Your task to perform on an android device: turn off priority inbox in the gmail app Image 0: 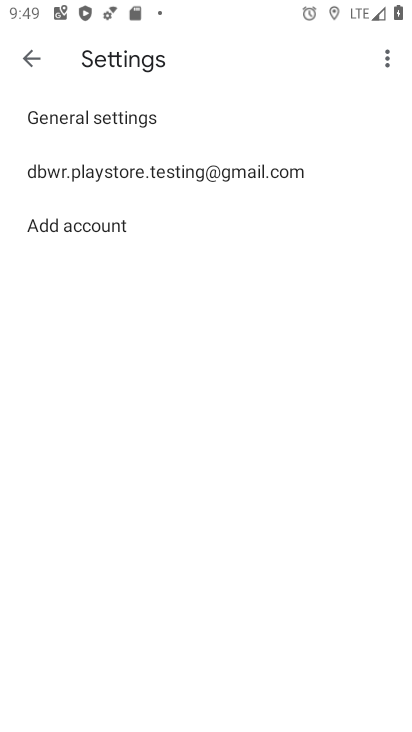
Step 0: press home button
Your task to perform on an android device: turn off priority inbox in the gmail app Image 1: 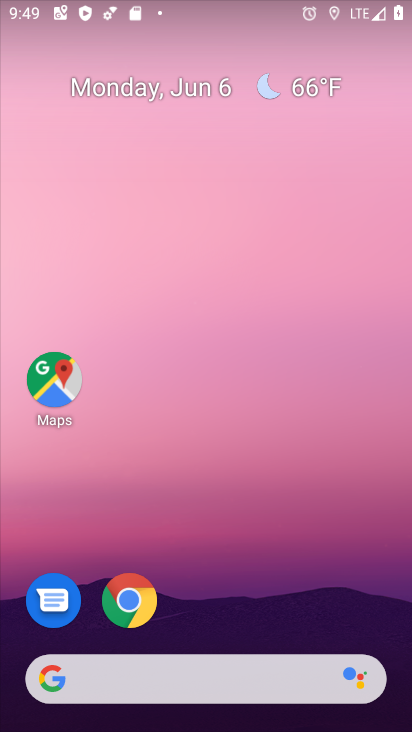
Step 1: drag from (35, 675) to (295, 166)
Your task to perform on an android device: turn off priority inbox in the gmail app Image 2: 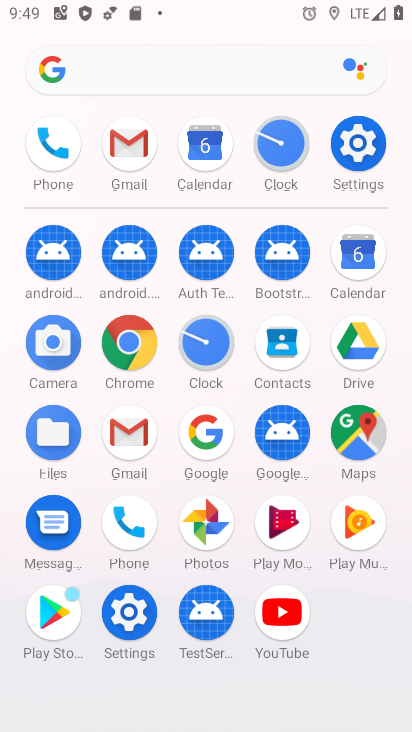
Step 2: click (143, 430)
Your task to perform on an android device: turn off priority inbox in the gmail app Image 3: 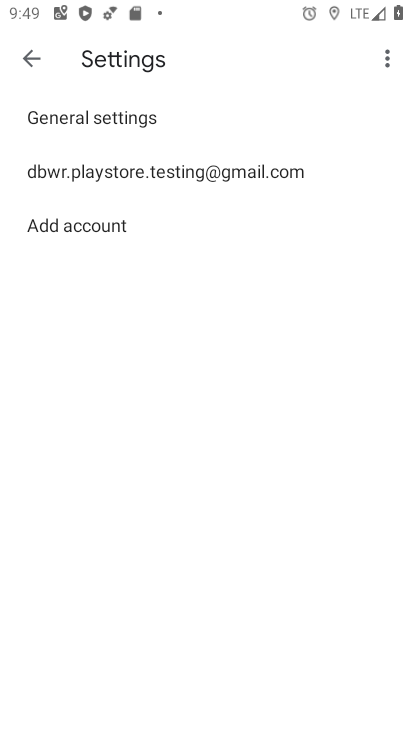
Step 3: click (77, 183)
Your task to perform on an android device: turn off priority inbox in the gmail app Image 4: 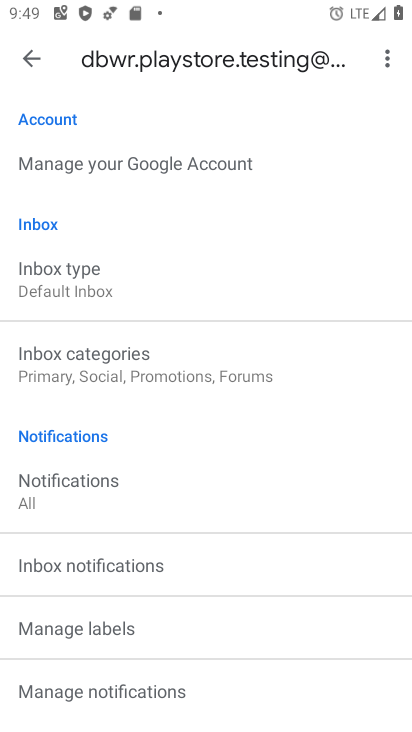
Step 4: click (56, 273)
Your task to perform on an android device: turn off priority inbox in the gmail app Image 5: 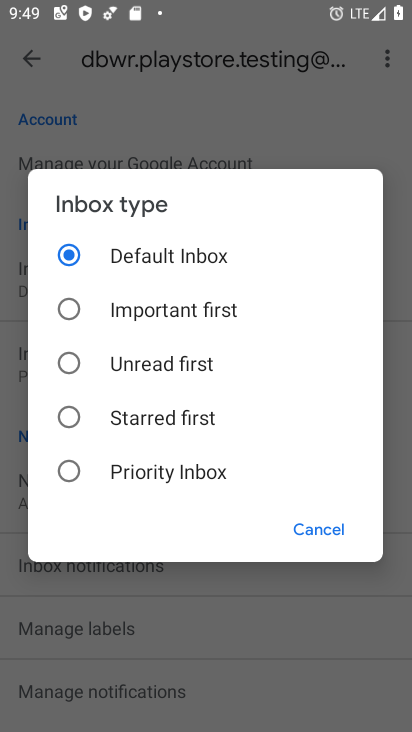
Step 5: task complete